Your task to perform on an android device: set an alarm Image 0: 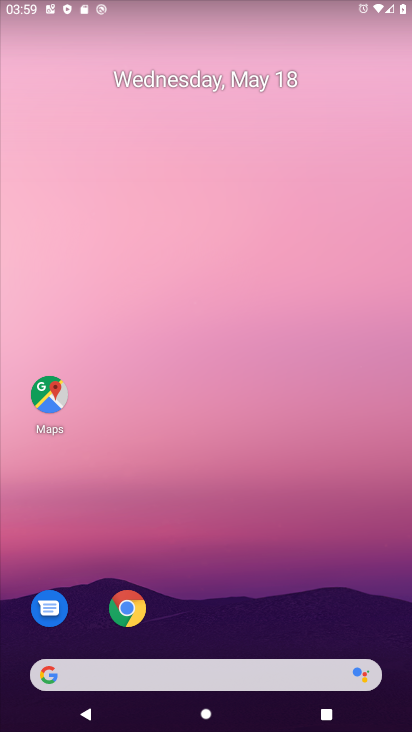
Step 0: drag from (195, 610) to (276, 34)
Your task to perform on an android device: set an alarm Image 1: 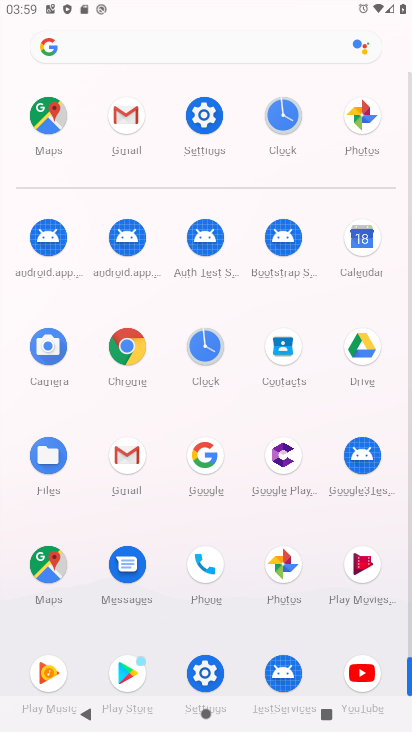
Step 1: click (273, 113)
Your task to perform on an android device: set an alarm Image 2: 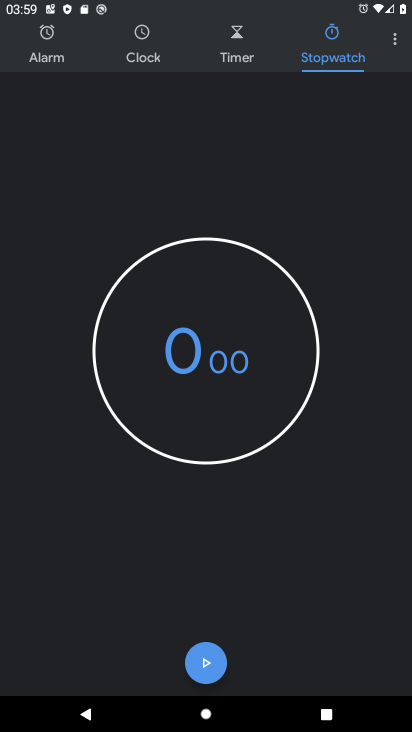
Step 2: click (19, 12)
Your task to perform on an android device: set an alarm Image 3: 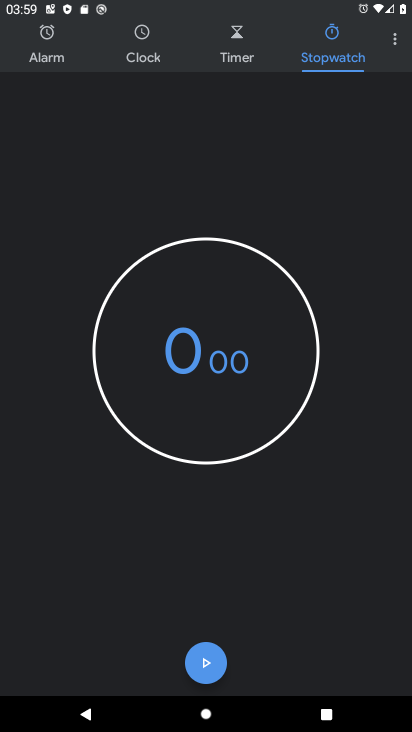
Step 3: click (56, 63)
Your task to perform on an android device: set an alarm Image 4: 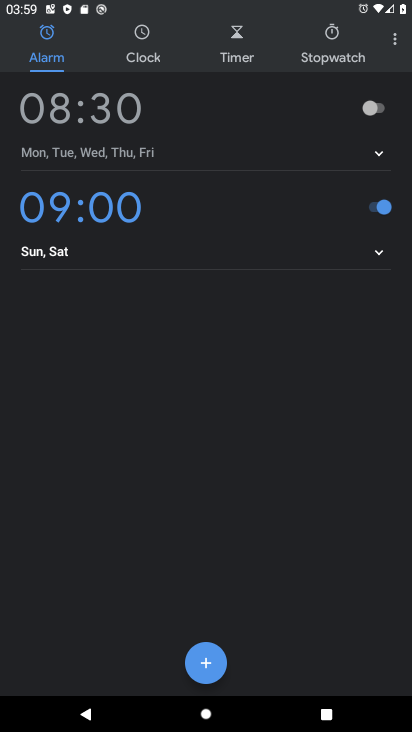
Step 4: click (376, 109)
Your task to perform on an android device: set an alarm Image 5: 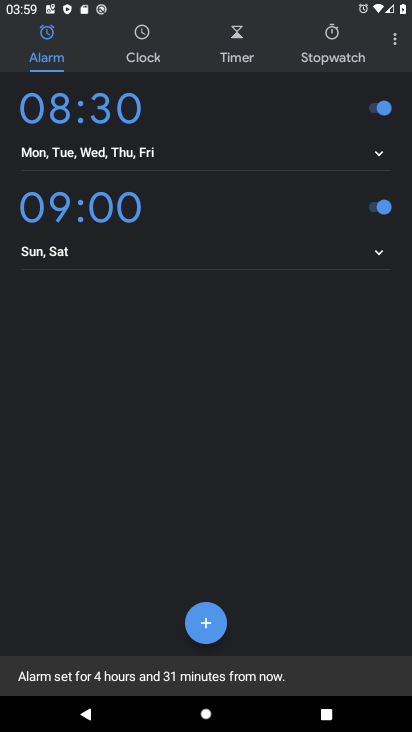
Step 5: task complete